Your task to perform on an android device: refresh tabs in the chrome app Image 0: 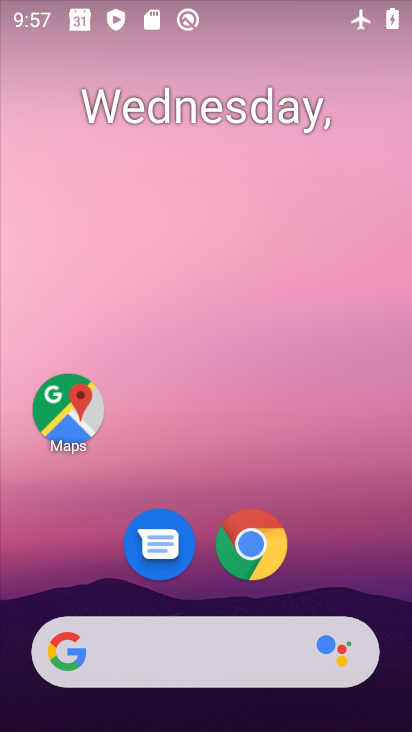
Step 0: click (270, 538)
Your task to perform on an android device: refresh tabs in the chrome app Image 1: 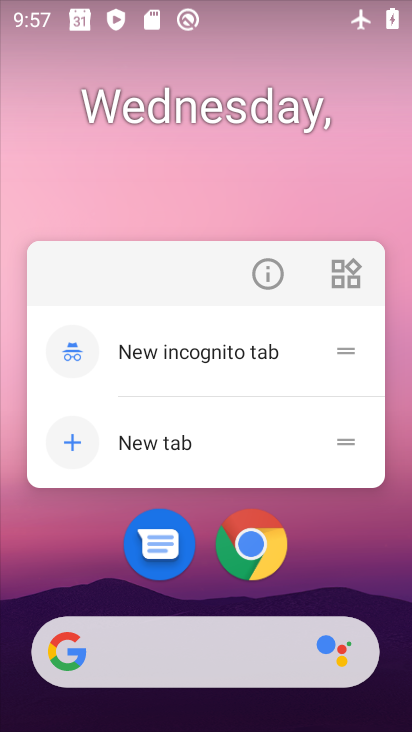
Step 1: click (275, 540)
Your task to perform on an android device: refresh tabs in the chrome app Image 2: 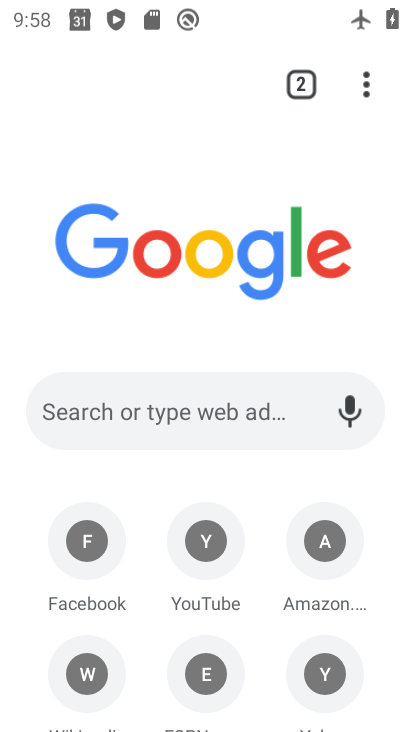
Step 2: click (353, 89)
Your task to perform on an android device: refresh tabs in the chrome app Image 3: 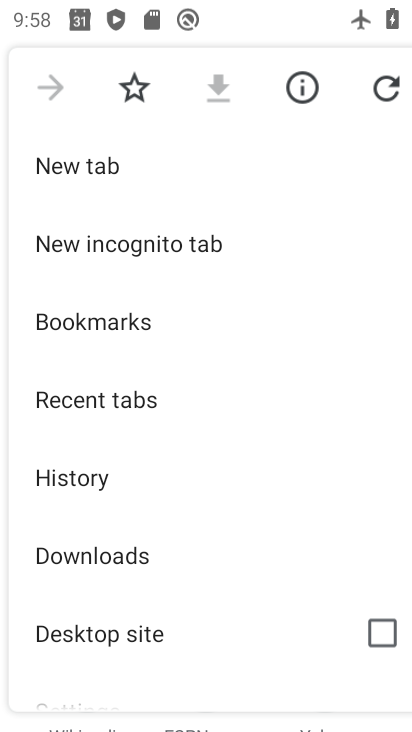
Step 3: click (141, 406)
Your task to perform on an android device: refresh tabs in the chrome app Image 4: 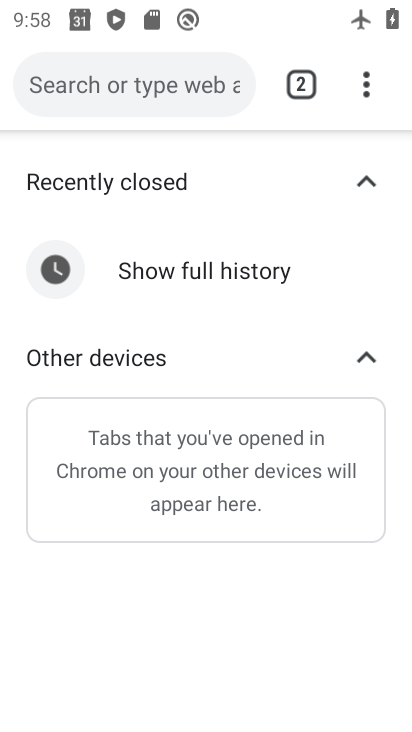
Step 4: click (350, 81)
Your task to perform on an android device: refresh tabs in the chrome app Image 5: 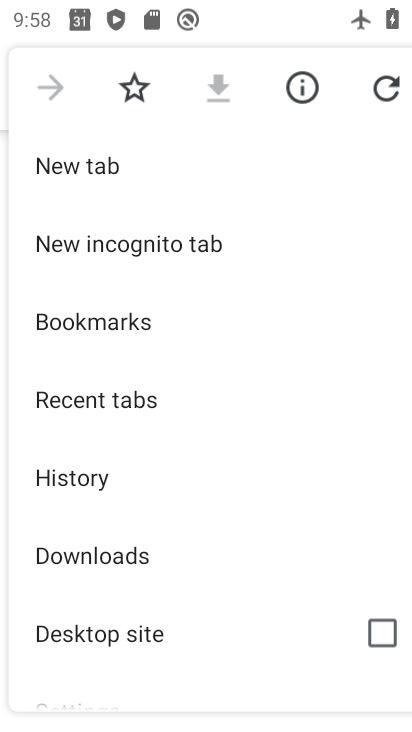
Step 5: click (384, 80)
Your task to perform on an android device: refresh tabs in the chrome app Image 6: 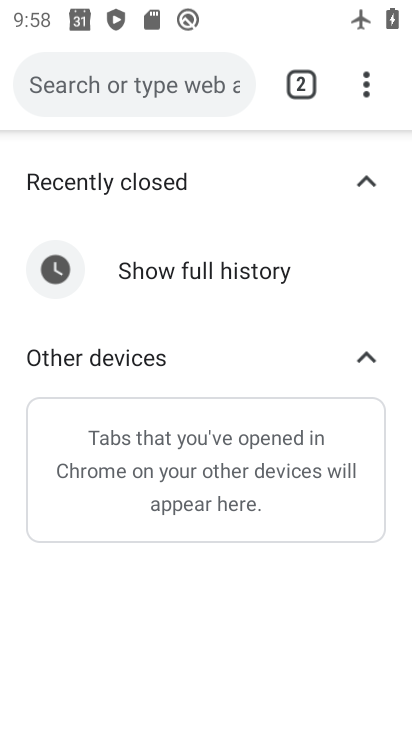
Step 6: task complete